Your task to perform on an android device: change the clock display to analog Image 0: 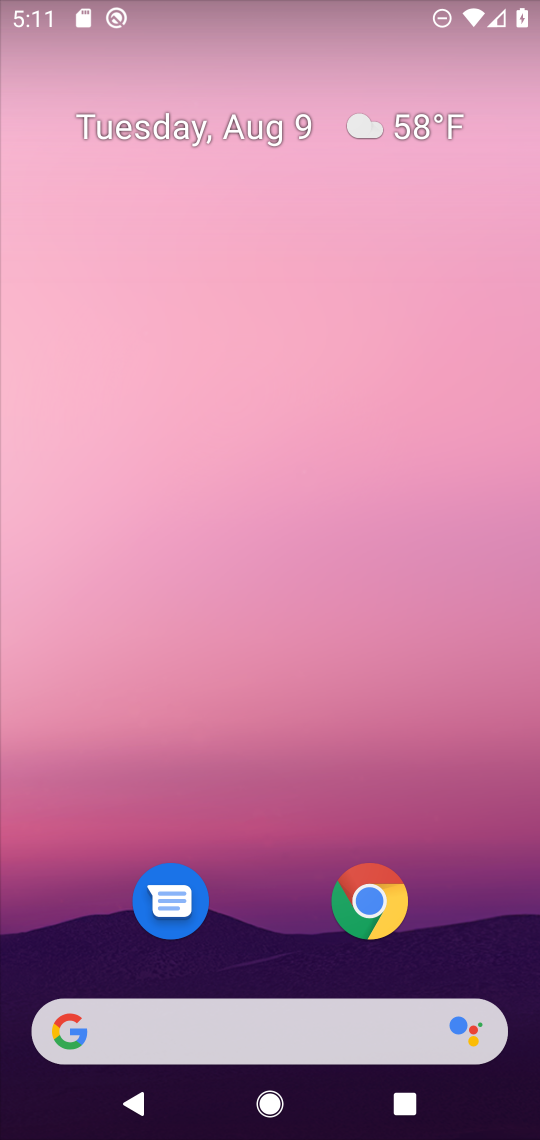
Step 0: drag from (306, 898) to (417, 3)
Your task to perform on an android device: change the clock display to analog Image 1: 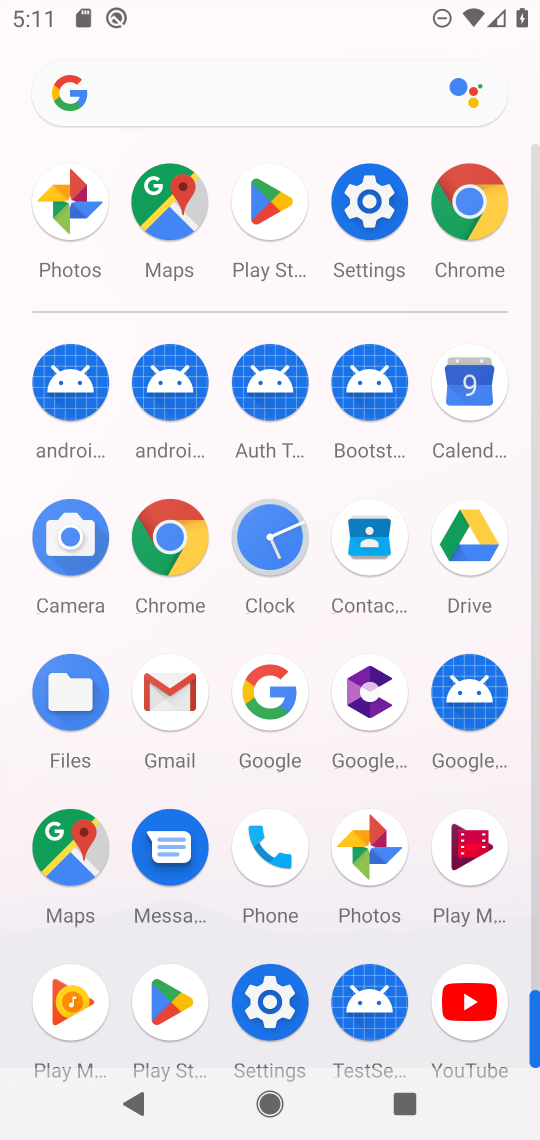
Step 1: click (266, 541)
Your task to perform on an android device: change the clock display to analog Image 2: 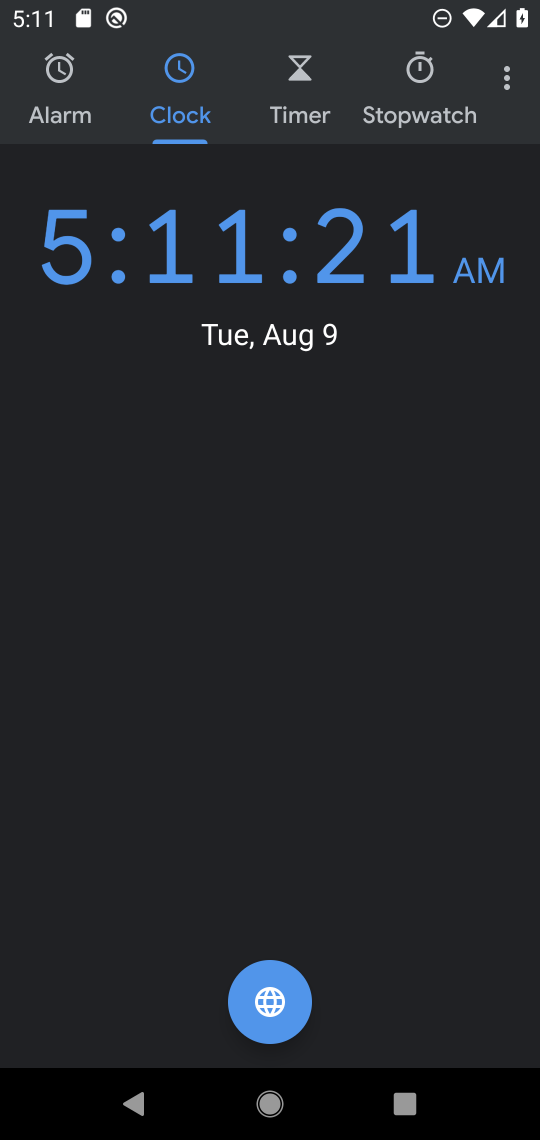
Step 2: click (511, 64)
Your task to perform on an android device: change the clock display to analog Image 3: 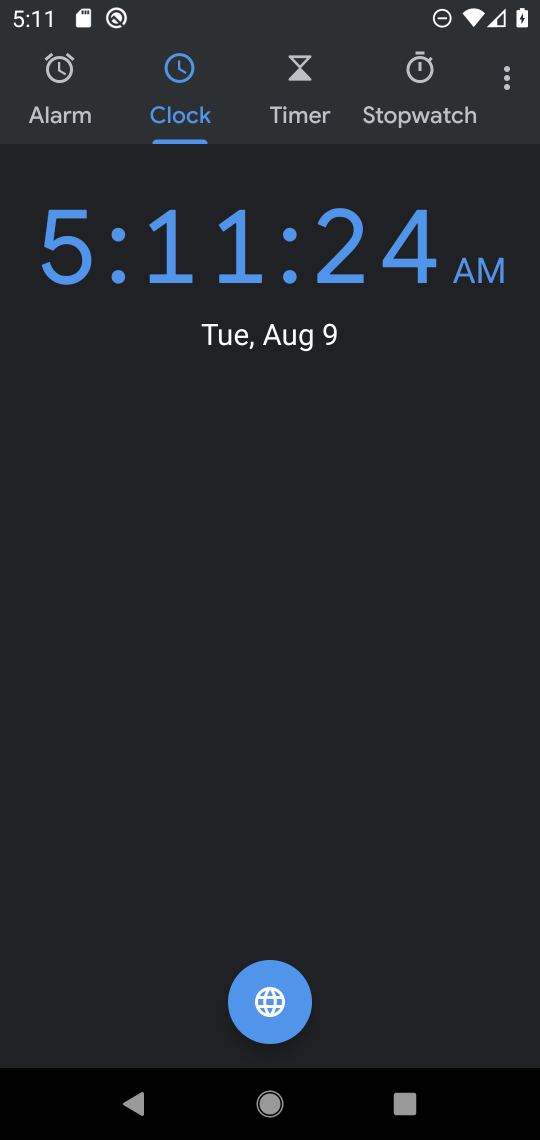
Step 3: click (512, 97)
Your task to perform on an android device: change the clock display to analog Image 4: 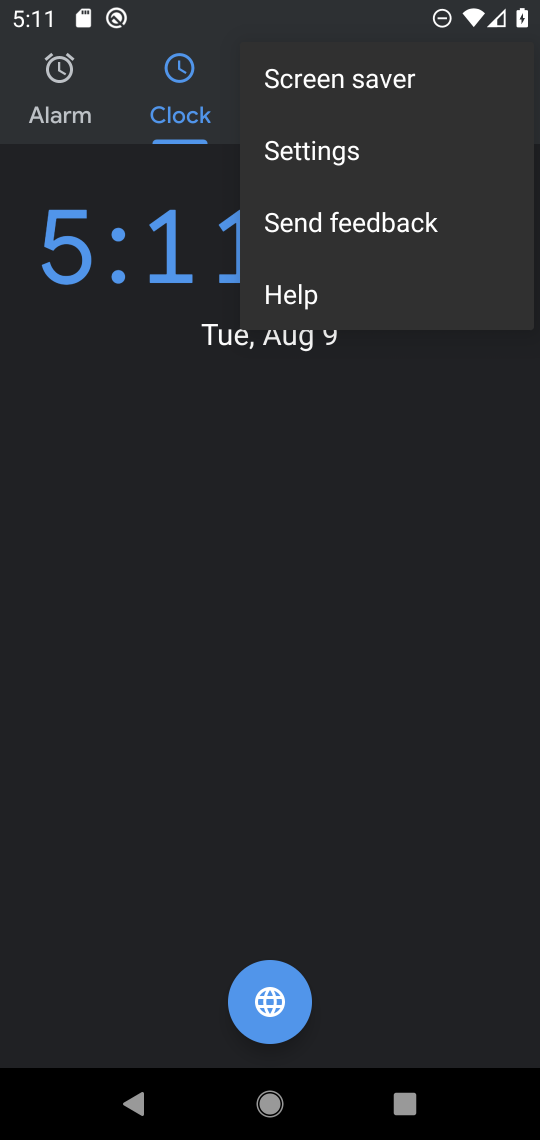
Step 4: click (320, 134)
Your task to perform on an android device: change the clock display to analog Image 5: 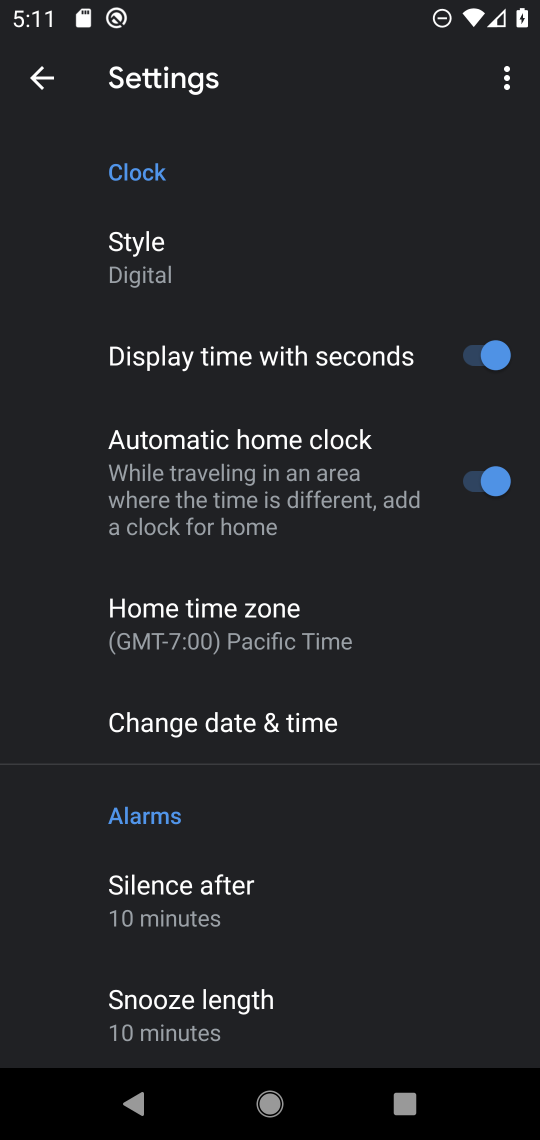
Step 5: click (142, 264)
Your task to perform on an android device: change the clock display to analog Image 6: 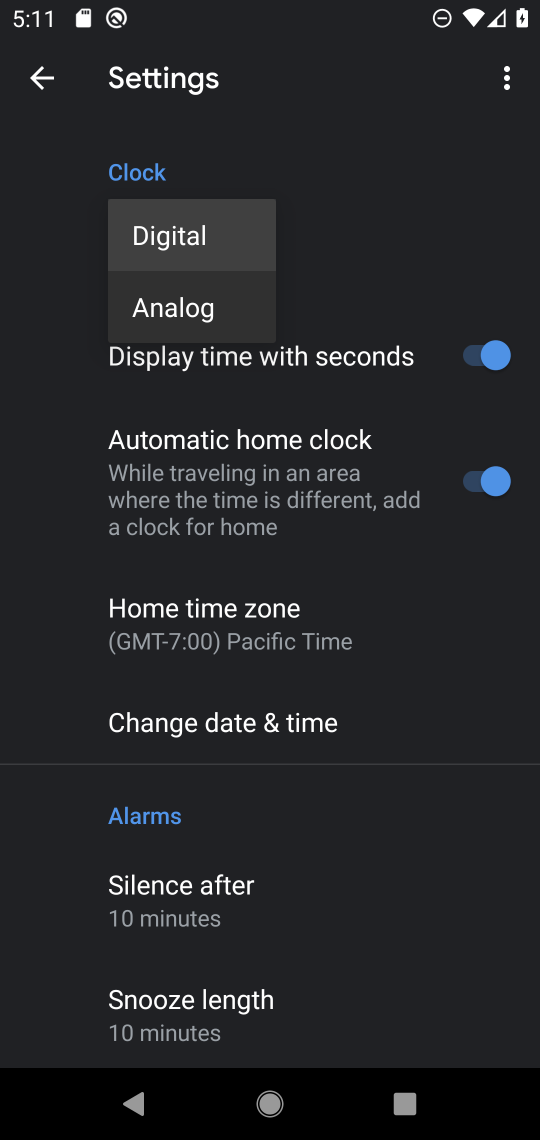
Step 6: click (192, 305)
Your task to perform on an android device: change the clock display to analog Image 7: 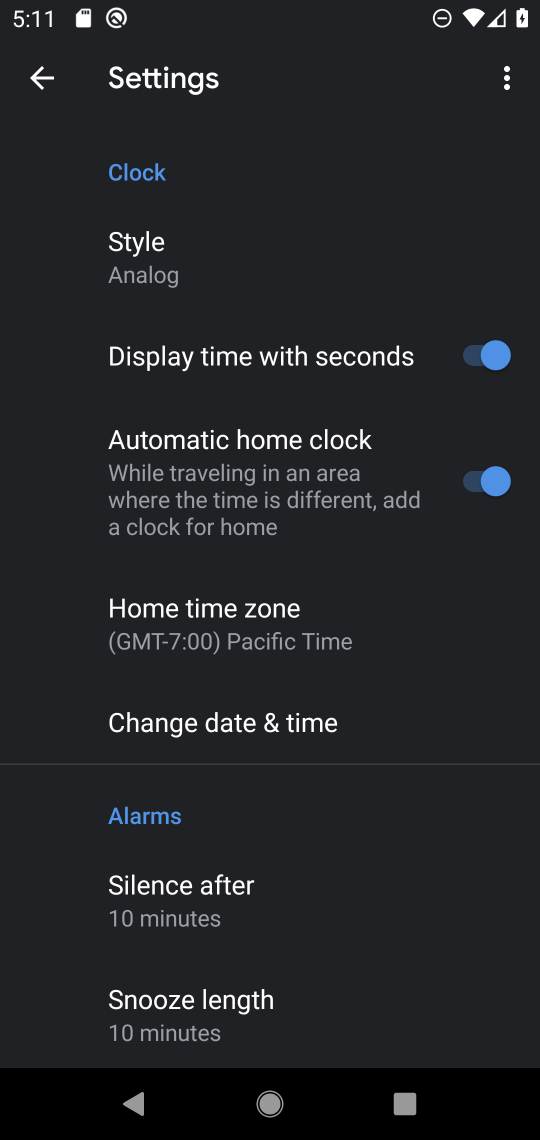
Step 7: task complete